Your task to perform on an android device: What's on my calendar today? Image 0: 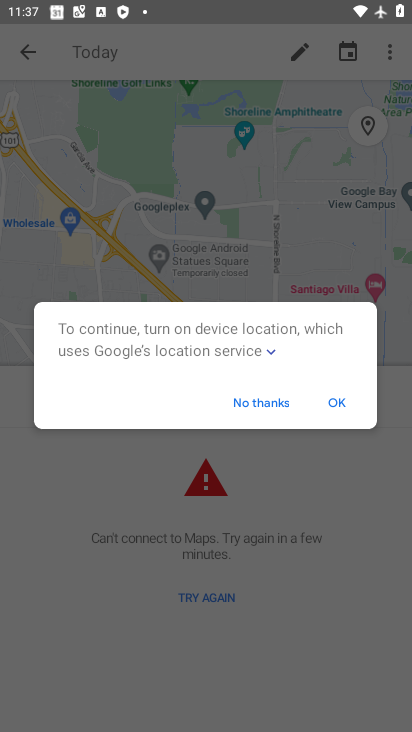
Step 0: press home button
Your task to perform on an android device: What's on my calendar today? Image 1: 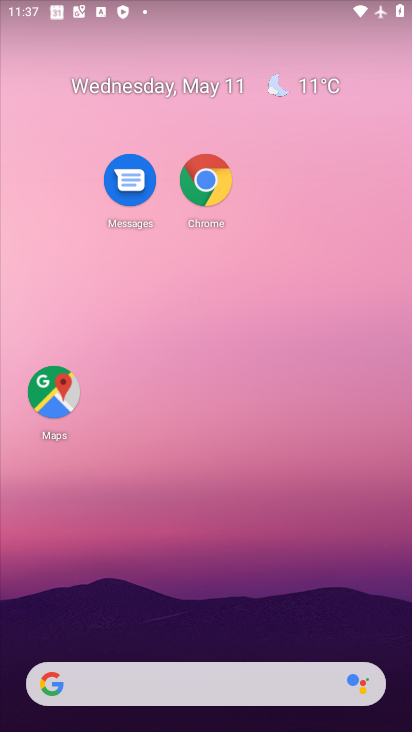
Step 1: drag from (259, 628) to (258, 203)
Your task to perform on an android device: What's on my calendar today? Image 2: 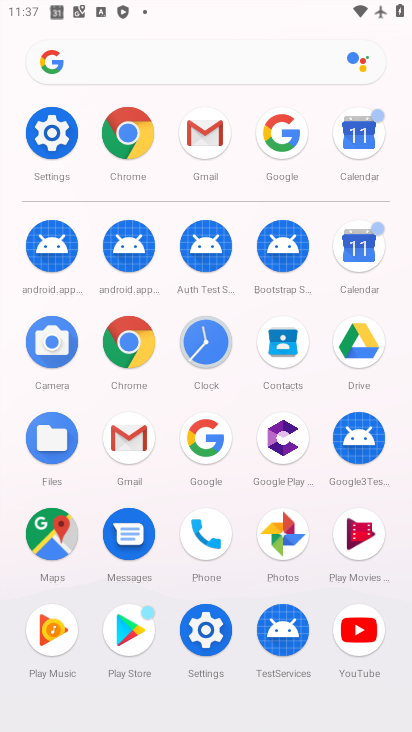
Step 2: click (357, 253)
Your task to perform on an android device: What's on my calendar today? Image 3: 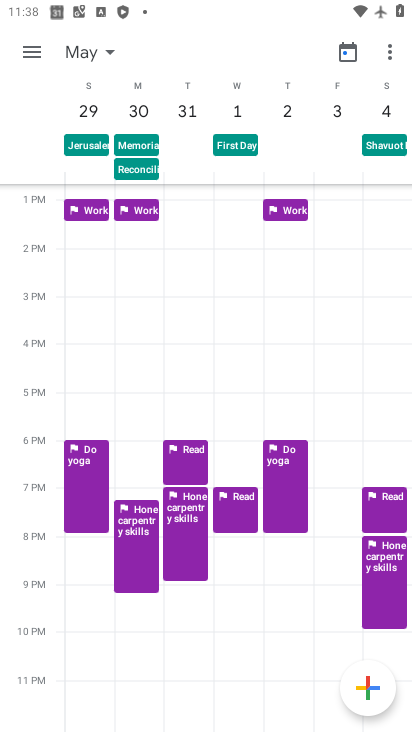
Step 3: click (90, 46)
Your task to perform on an android device: What's on my calendar today? Image 4: 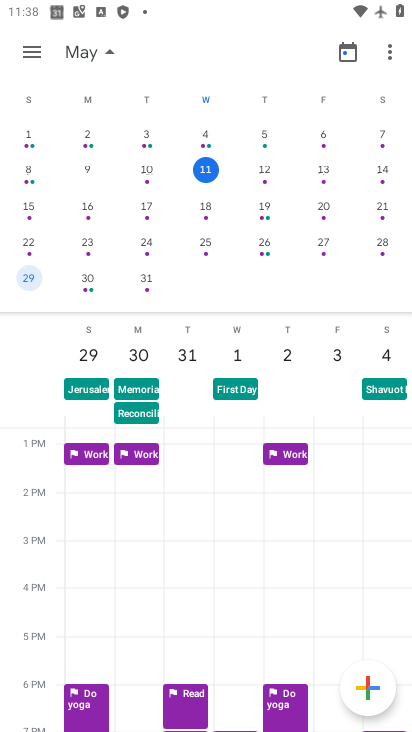
Step 4: click (207, 168)
Your task to perform on an android device: What's on my calendar today? Image 5: 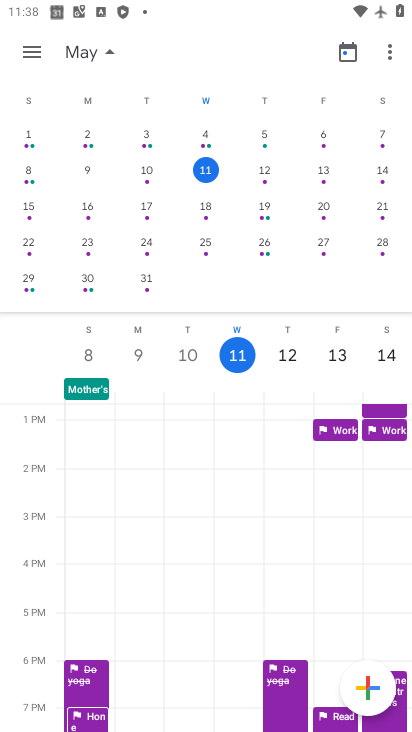
Step 5: click (244, 366)
Your task to perform on an android device: What's on my calendar today? Image 6: 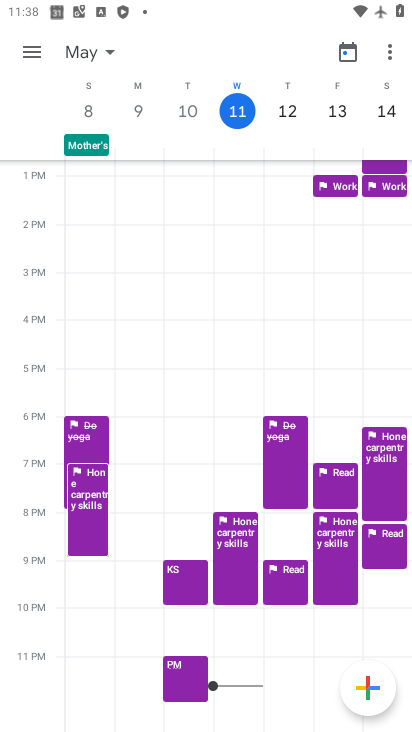
Step 6: click (225, 106)
Your task to perform on an android device: What's on my calendar today? Image 7: 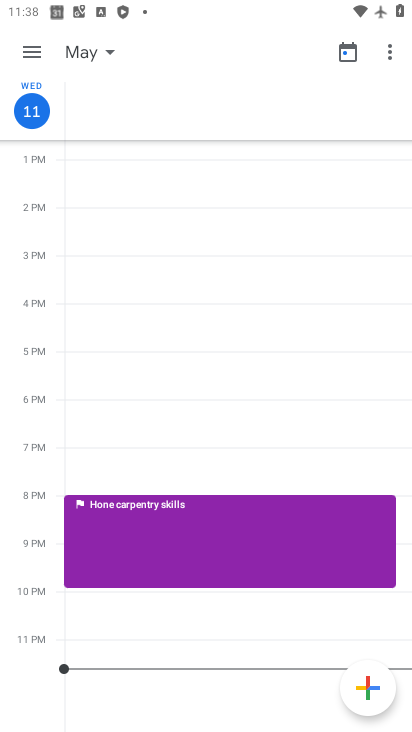
Step 7: task complete